Your task to perform on an android device: toggle javascript in the chrome app Image 0: 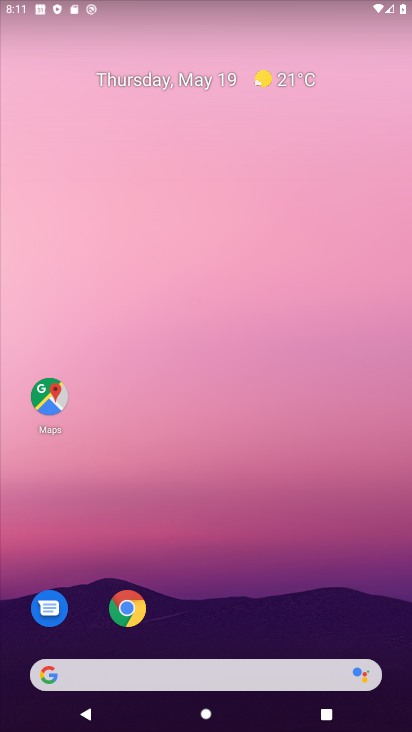
Step 0: click (128, 604)
Your task to perform on an android device: toggle javascript in the chrome app Image 1: 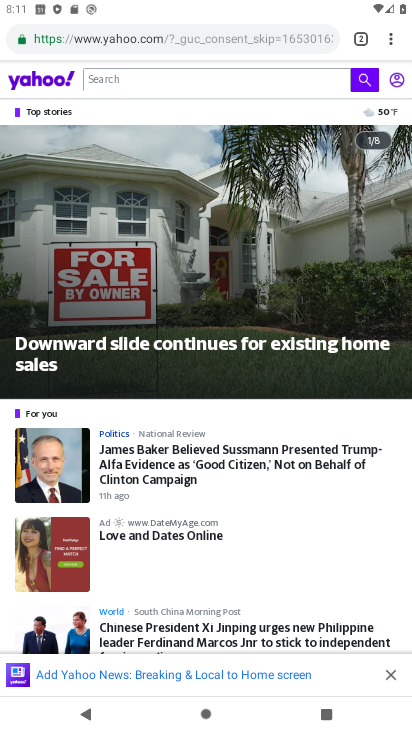
Step 1: click (391, 39)
Your task to perform on an android device: toggle javascript in the chrome app Image 2: 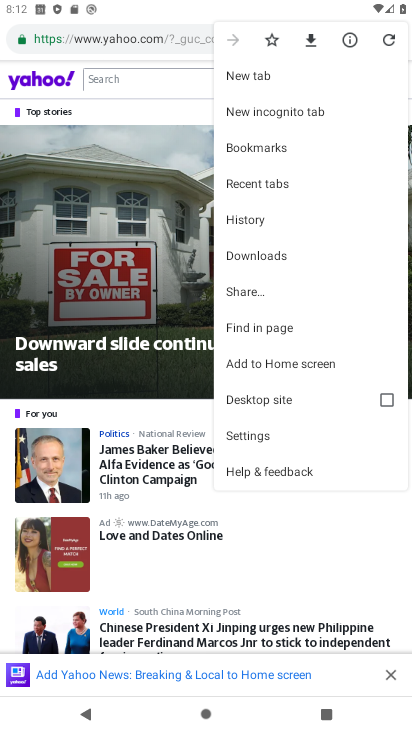
Step 2: click (250, 435)
Your task to perform on an android device: toggle javascript in the chrome app Image 3: 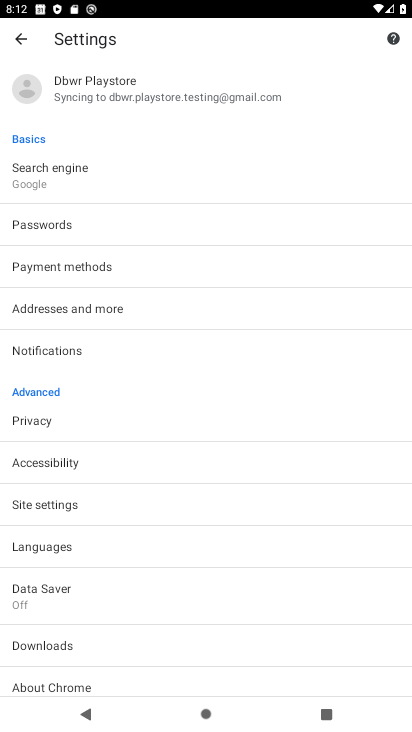
Step 3: drag from (186, 396) to (173, 159)
Your task to perform on an android device: toggle javascript in the chrome app Image 4: 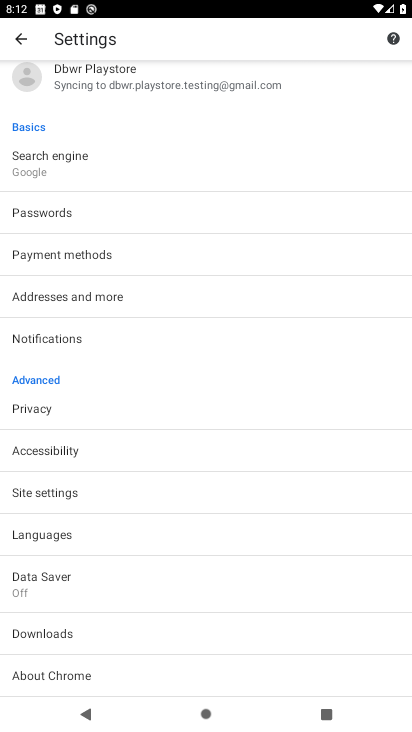
Step 4: click (56, 484)
Your task to perform on an android device: toggle javascript in the chrome app Image 5: 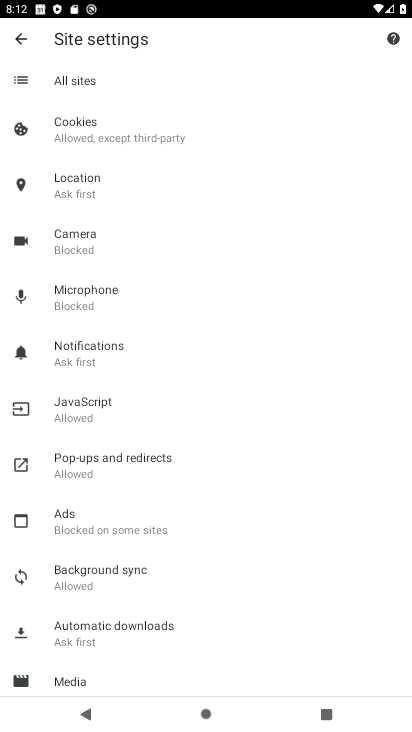
Step 5: click (74, 401)
Your task to perform on an android device: toggle javascript in the chrome app Image 6: 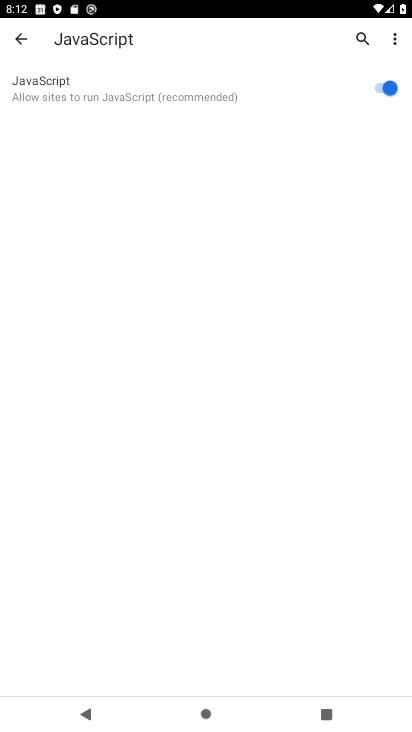
Step 6: click (385, 90)
Your task to perform on an android device: toggle javascript in the chrome app Image 7: 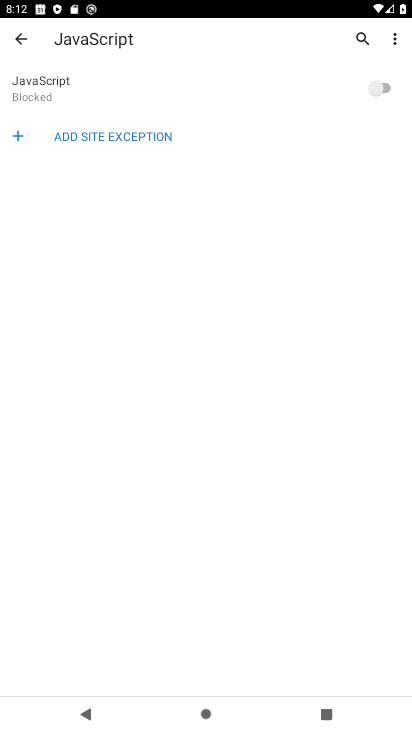
Step 7: task complete